Your task to perform on an android device: toggle data saver in the chrome app Image 0: 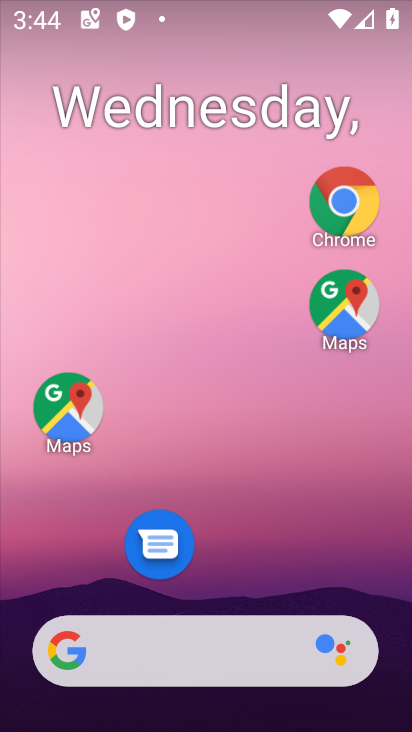
Step 0: click (355, 238)
Your task to perform on an android device: toggle data saver in the chrome app Image 1: 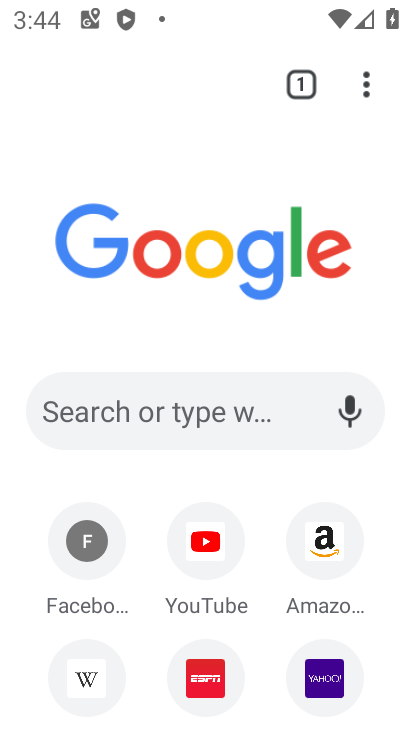
Step 1: click (364, 88)
Your task to perform on an android device: toggle data saver in the chrome app Image 2: 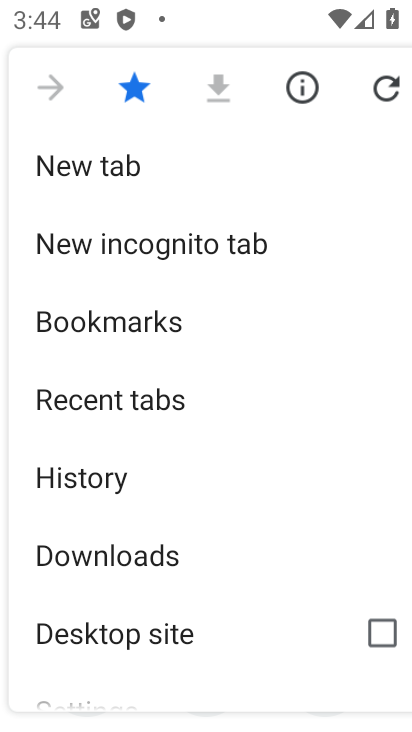
Step 2: drag from (175, 636) to (167, 285)
Your task to perform on an android device: toggle data saver in the chrome app Image 3: 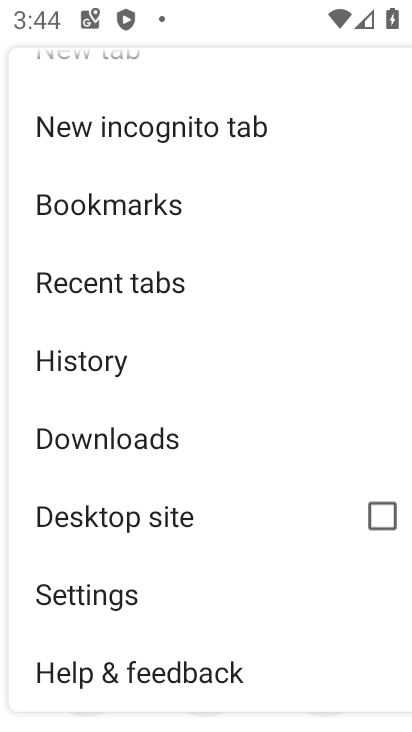
Step 3: click (107, 599)
Your task to perform on an android device: toggle data saver in the chrome app Image 4: 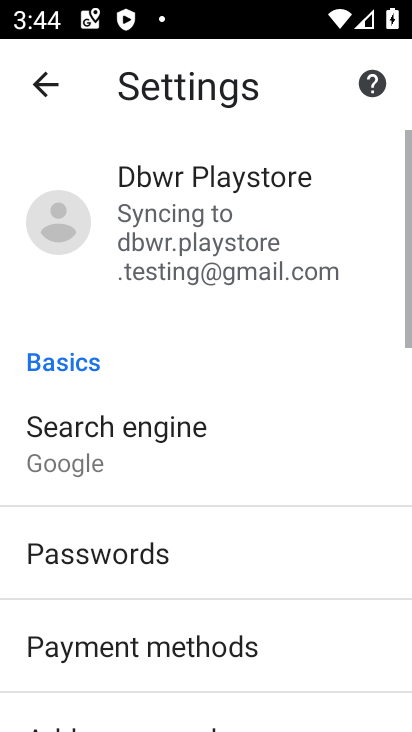
Step 4: drag from (171, 656) to (231, 236)
Your task to perform on an android device: toggle data saver in the chrome app Image 5: 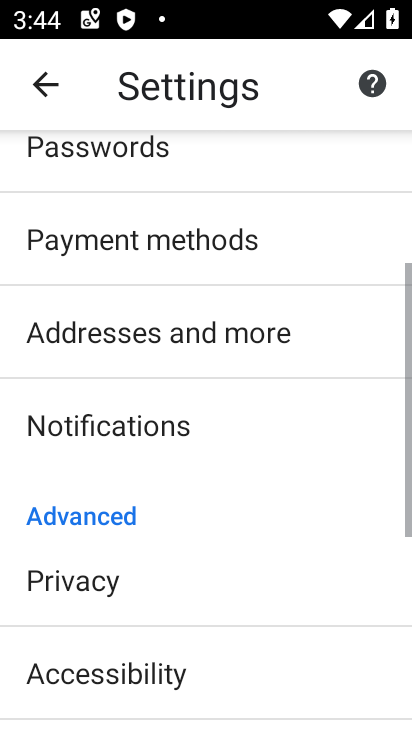
Step 5: drag from (171, 629) to (180, 204)
Your task to perform on an android device: toggle data saver in the chrome app Image 6: 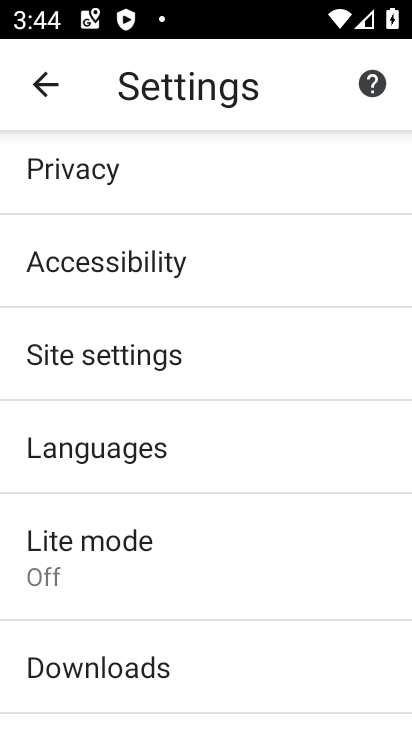
Step 6: click (134, 557)
Your task to perform on an android device: toggle data saver in the chrome app Image 7: 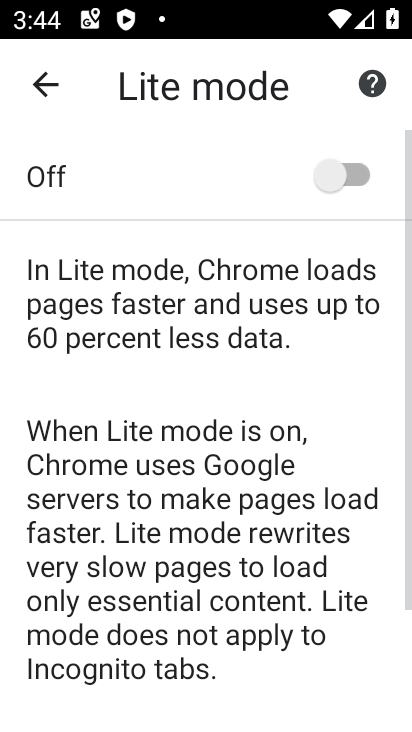
Step 7: click (365, 180)
Your task to perform on an android device: toggle data saver in the chrome app Image 8: 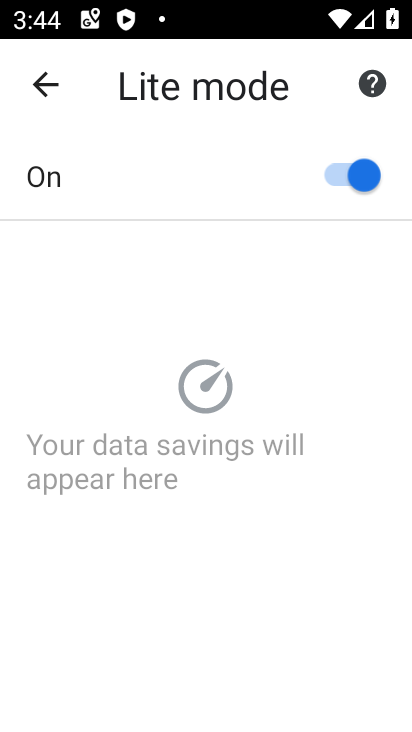
Step 8: task complete